Your task to perform on an android device: turn off sleep mode Image 0: 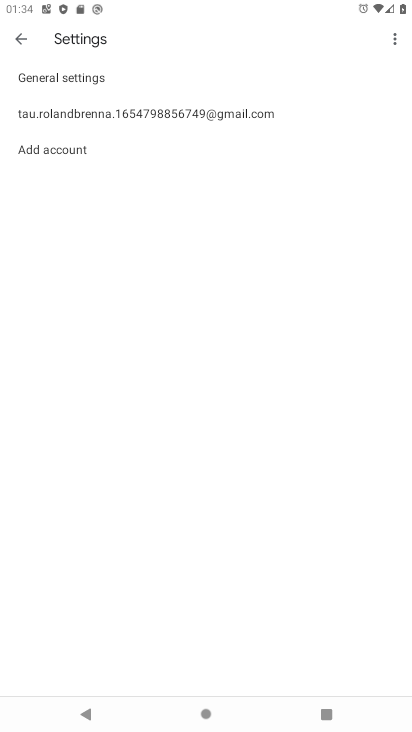
Step 0: press home button
Your task to perform on an android device: turn off sleep mode Image 1: 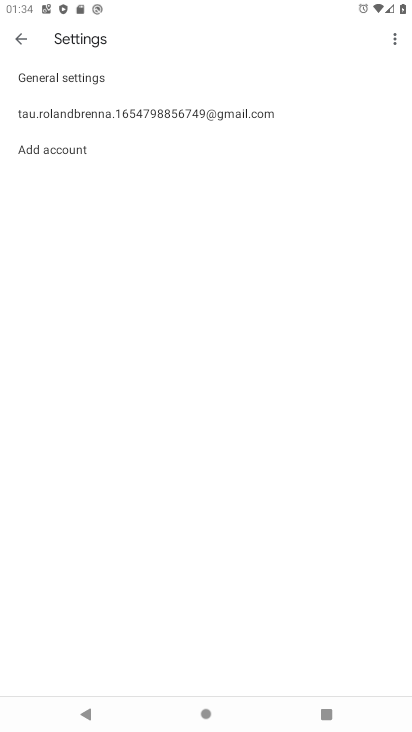
Step 1: drag from (382, 539) to (395, 52)
Your task to perform on an android device: turn off sleep mode Image 2: 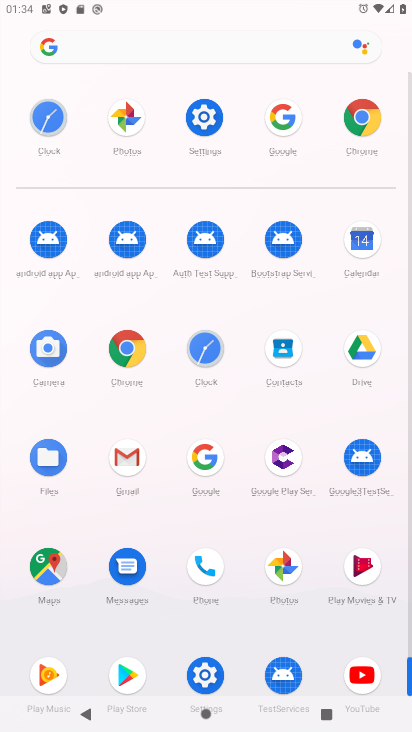
Step 2: click (211, 669)
Your task to perform on an android device: turn off sleep mode Image 3: 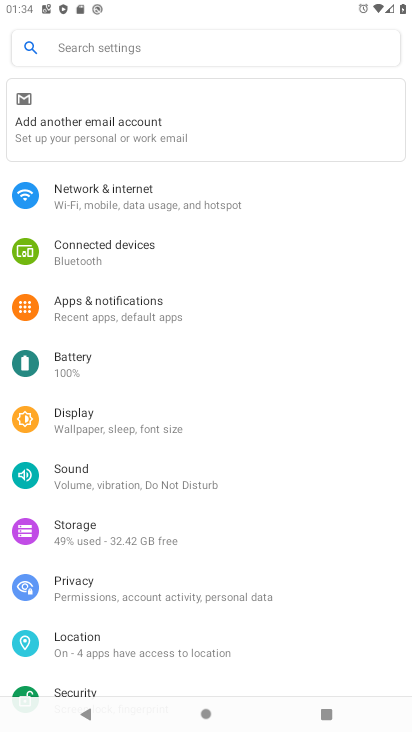
Step 3: click (105, 476)
Your task to perform on an android device: turn off sleep mode Image 4: 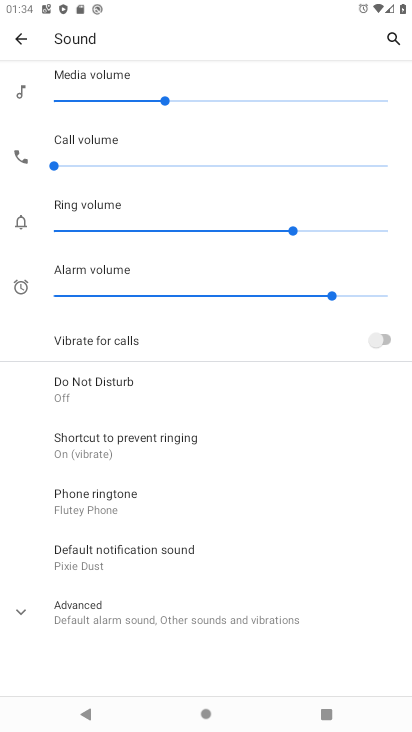
Step 4: task complete